Your task to perform on an android device: Open calendar and show me the second week of next month Image 0: 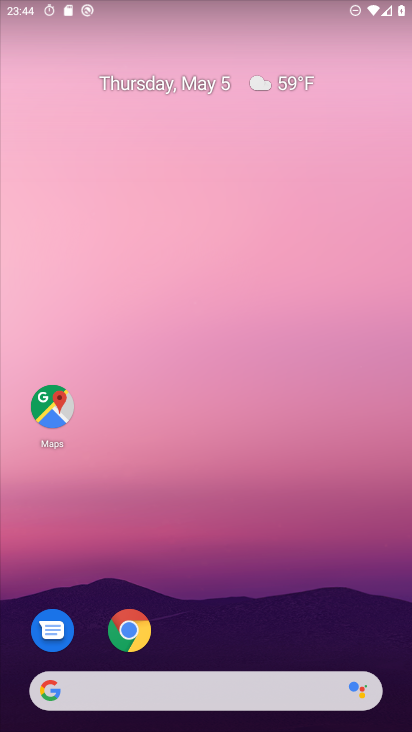
Step 0: drag from (230, 611) to (120, 61)
Your task to perform on an android device: Open calendar and show me the second week of next month Image 1: 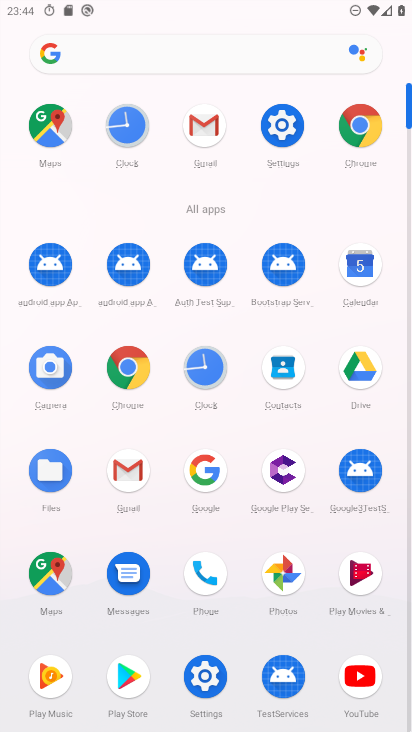
Step 1: click (362, 266)
Your task to perform on an android device: Open calendar and show me the second week of next month Image 2: 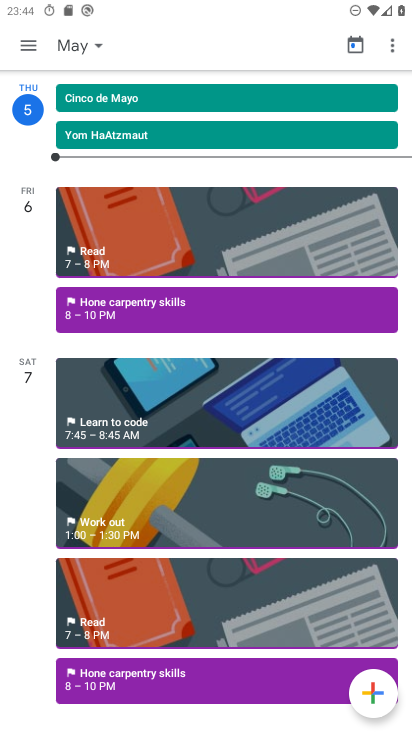
Step 2: click (72, 46)
Your task to perform on an android device: Open calendar and show me the second week of next month Image 3: 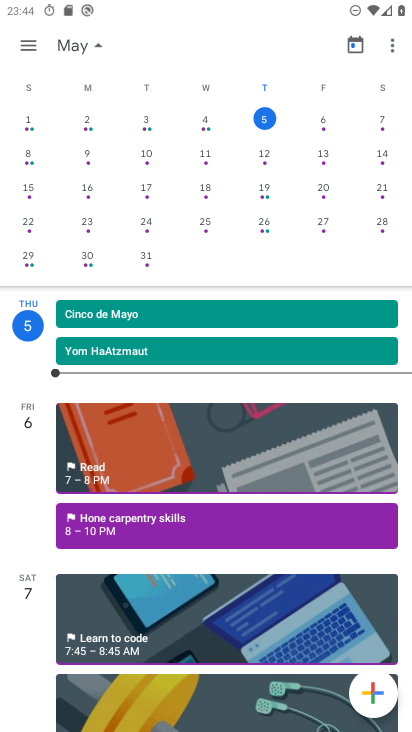
Step 3: drag from (306, 216) to (3, 186)
Your task to perform on an android device: Open calendar and show me the second week of next month Image 4: 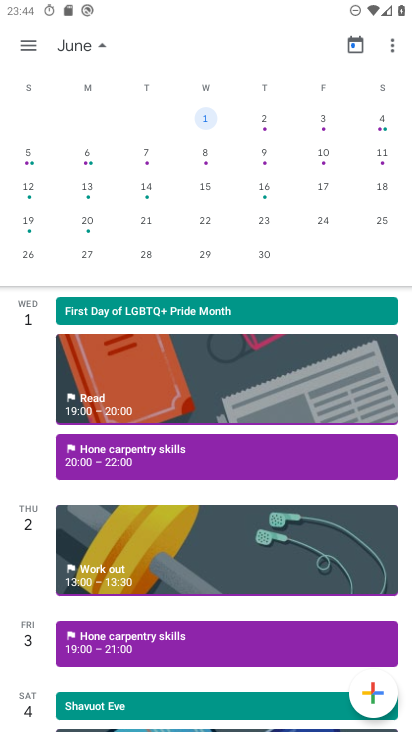
Step 4: click (89, 159)
Your task to perform on an android device: Open calendar and show me the second week of next month Image 5: 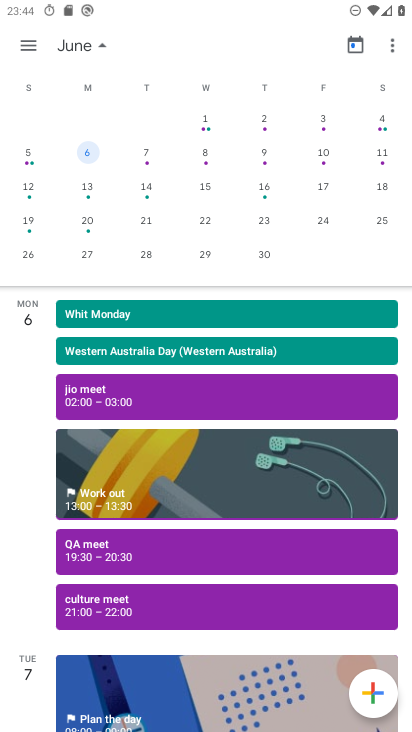
Step 5: task complete